Your task to perform on an android device: change notifications settings Image 0: 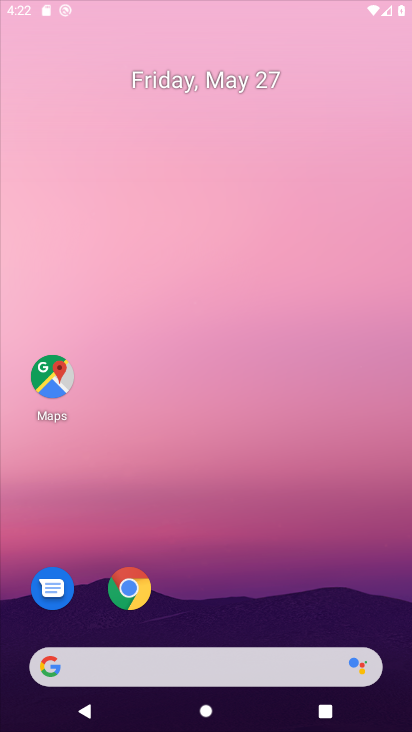
Step 0: drag from (139, 728) to (207, 104)
Your task to perform on an android device: change notifications settings Image 1: 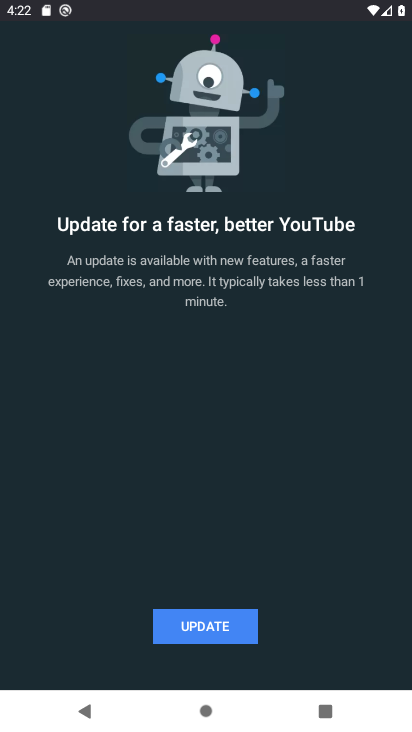
Step 1: press home button
Your task to perform on an android device: change notifications settings Image 2: 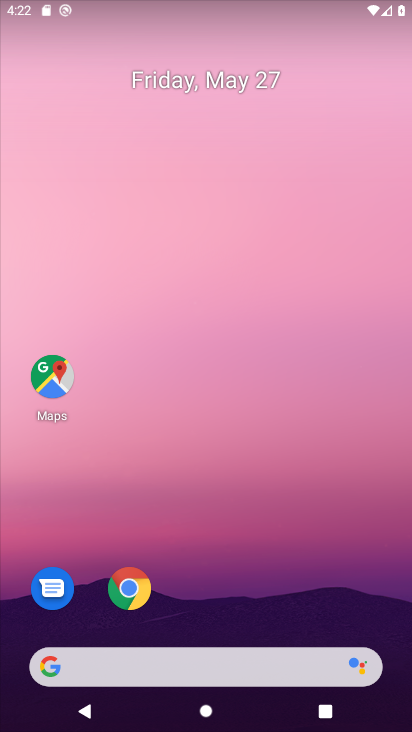
Step 2: drag from (146, 727) to (138, 91)
Your task to perform on an android device: change notifications settings Image 3: 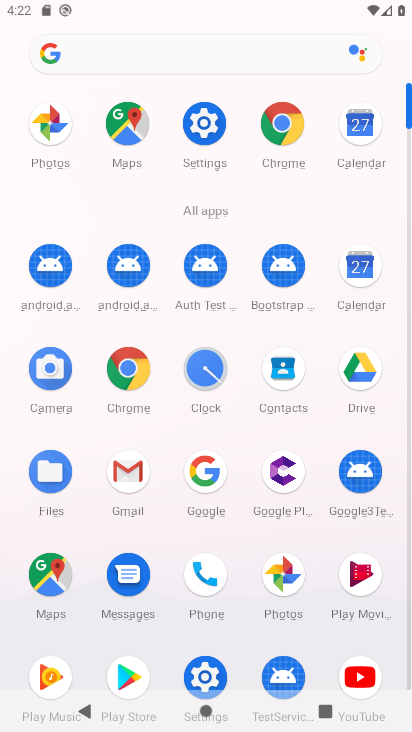
Step 3: click (210, 124)
Your task to perform on an android device: change notifications settings Image 4: 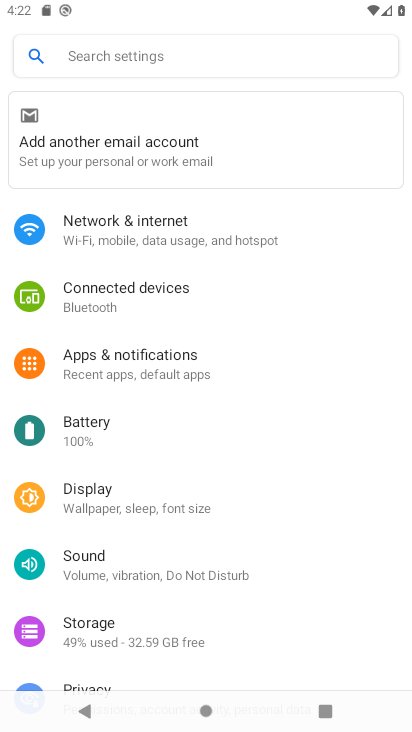
Step 4: click (163, 365)
Your task to perform on an android device: change notifications settings Image 5: 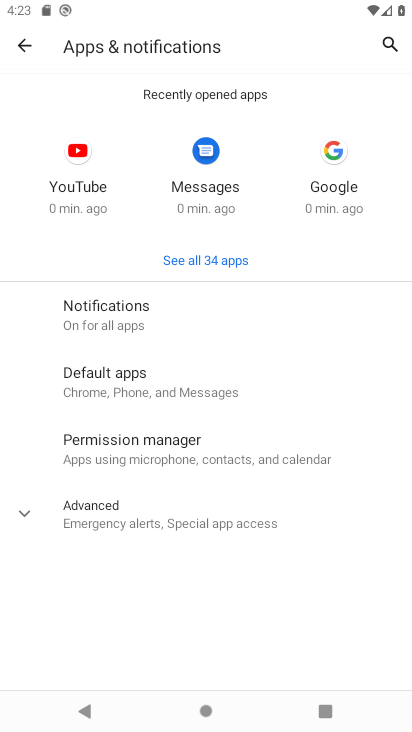
Step 5: click (147, 321)
Your task to perform on an android device: change notifications settings Image 6: 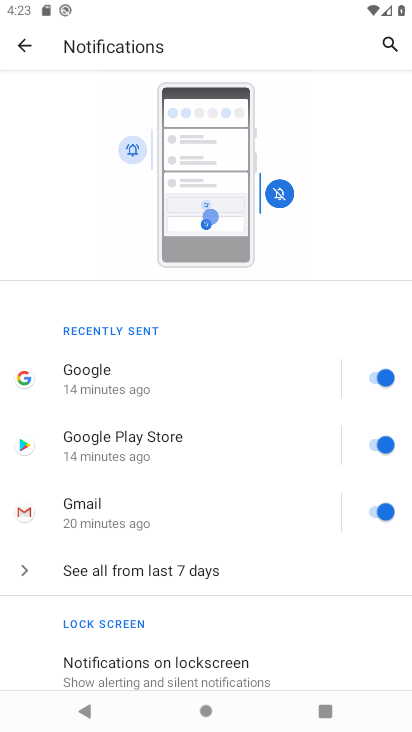
Step 6: click (390, 374)
Your task to perform on an android device: change notifications settings Image 7: 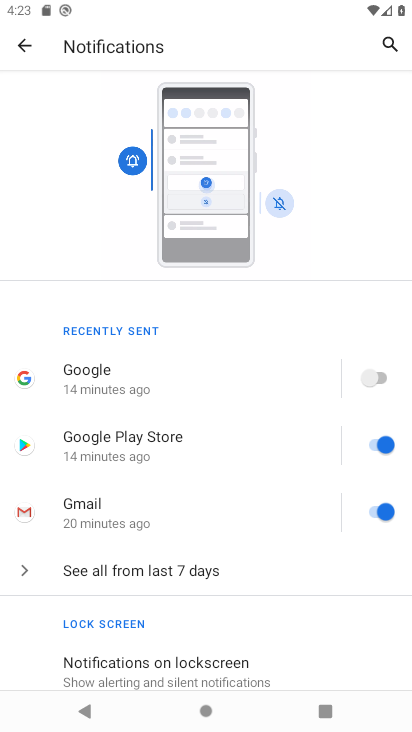
Step 7: task complete